Your task to perform on an android device: Open notification settings Image 0: 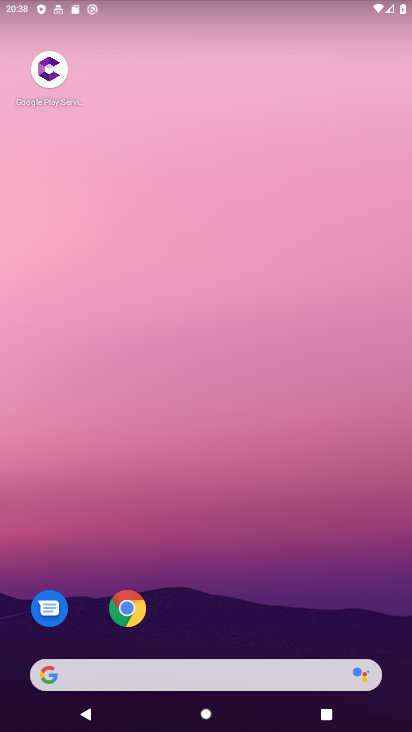
Step 0: drag from (260, 587) to (295, 33)
Your task to perform on an android device: Open notification settings Image 1: 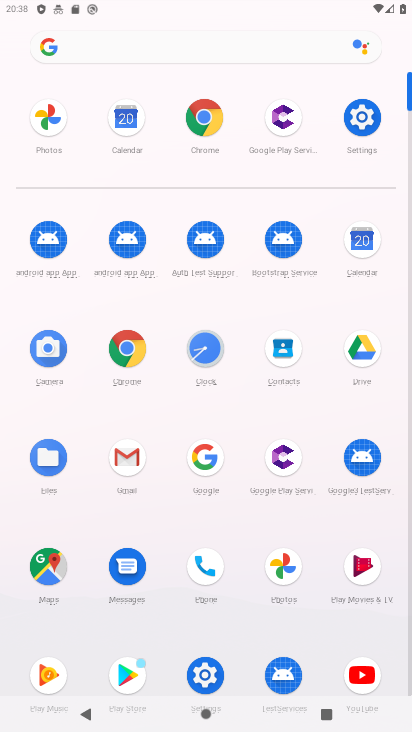
Step 1: click (356, 126)
Your task to perform on an android device: Open notification settings Image 2: 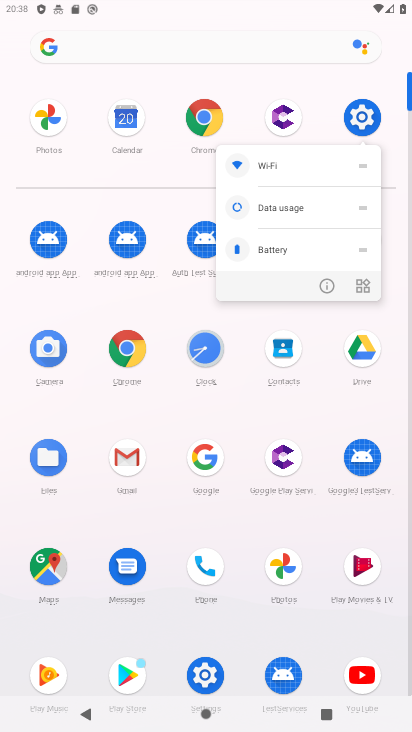
Step 2: click (356, 119)
Your task to perform on an android device: Open notification settings Image 3: 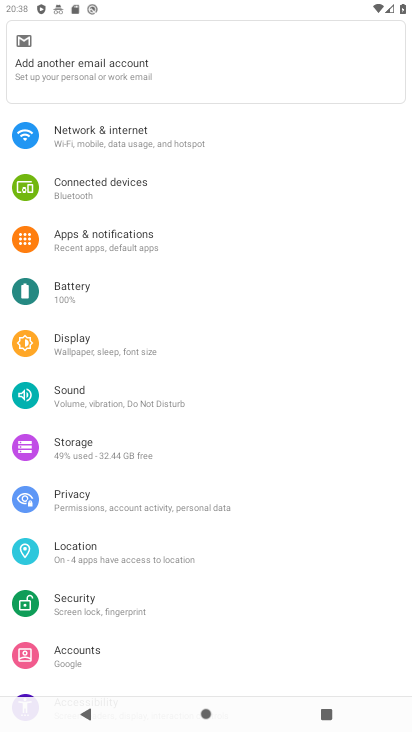
Step 3: click (69, 234)
Your task to perform on an android device: Open notification settings Image 4: 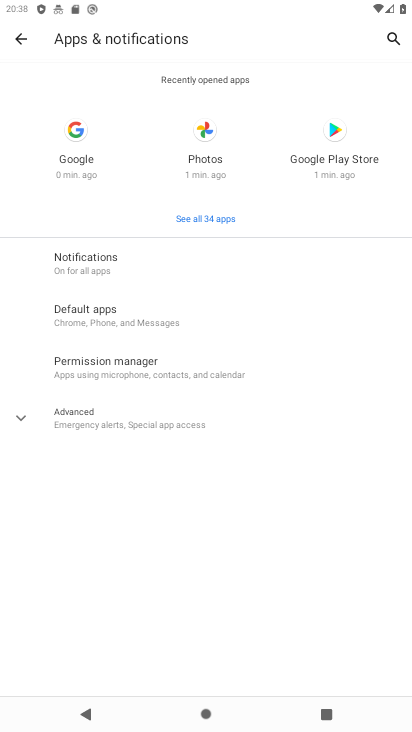
Step 4: click (89, 269)
Your task to perform on an android device: Open notification settings Image 5: 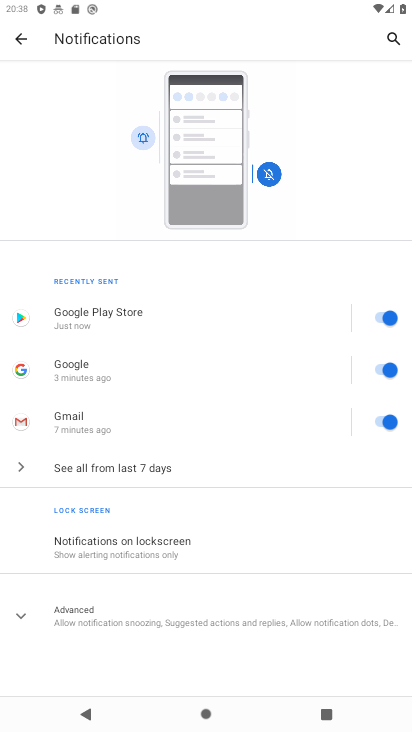
Step 5: task complete